Your task to perform on an android device: change timer sound Image 0: 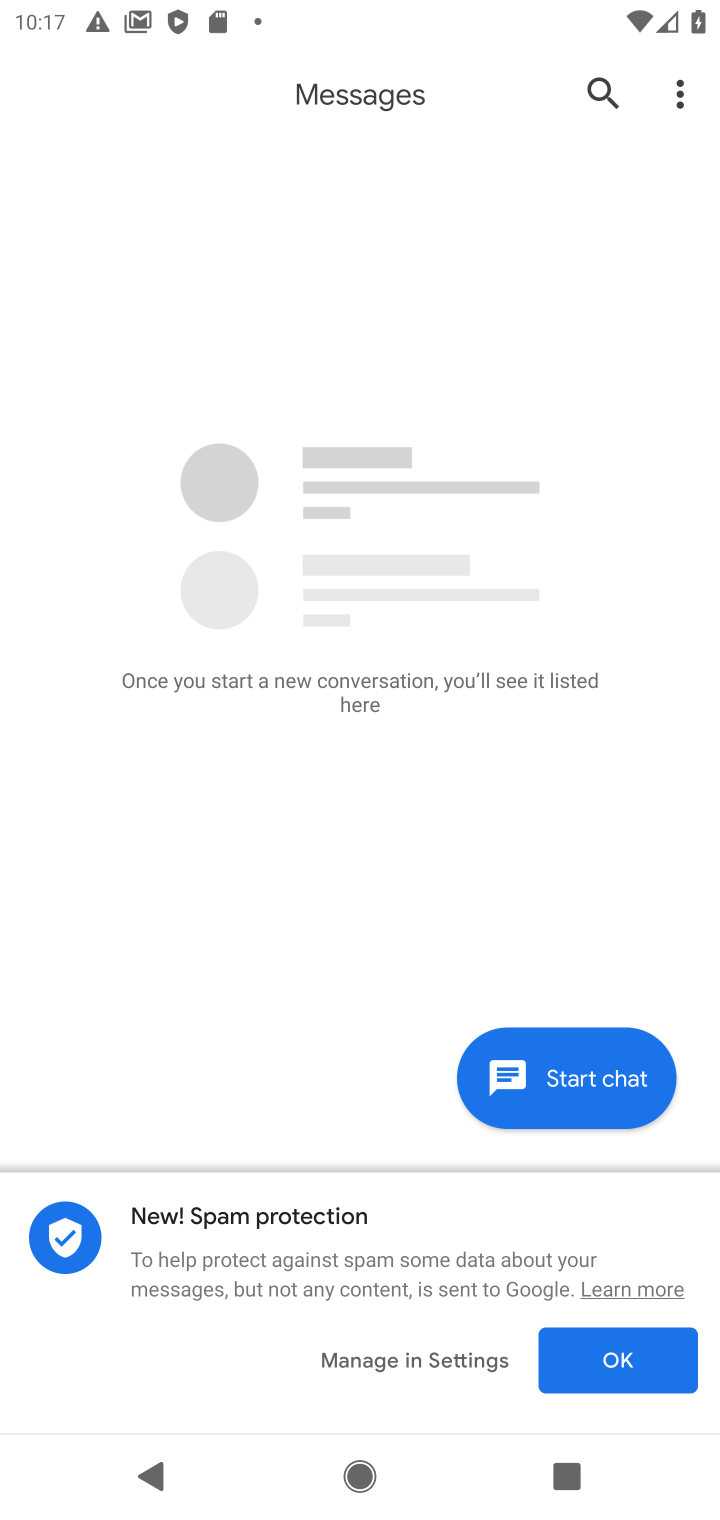
Step 0: press home button
Your task to perform on an android device: change timer sound Image 1: 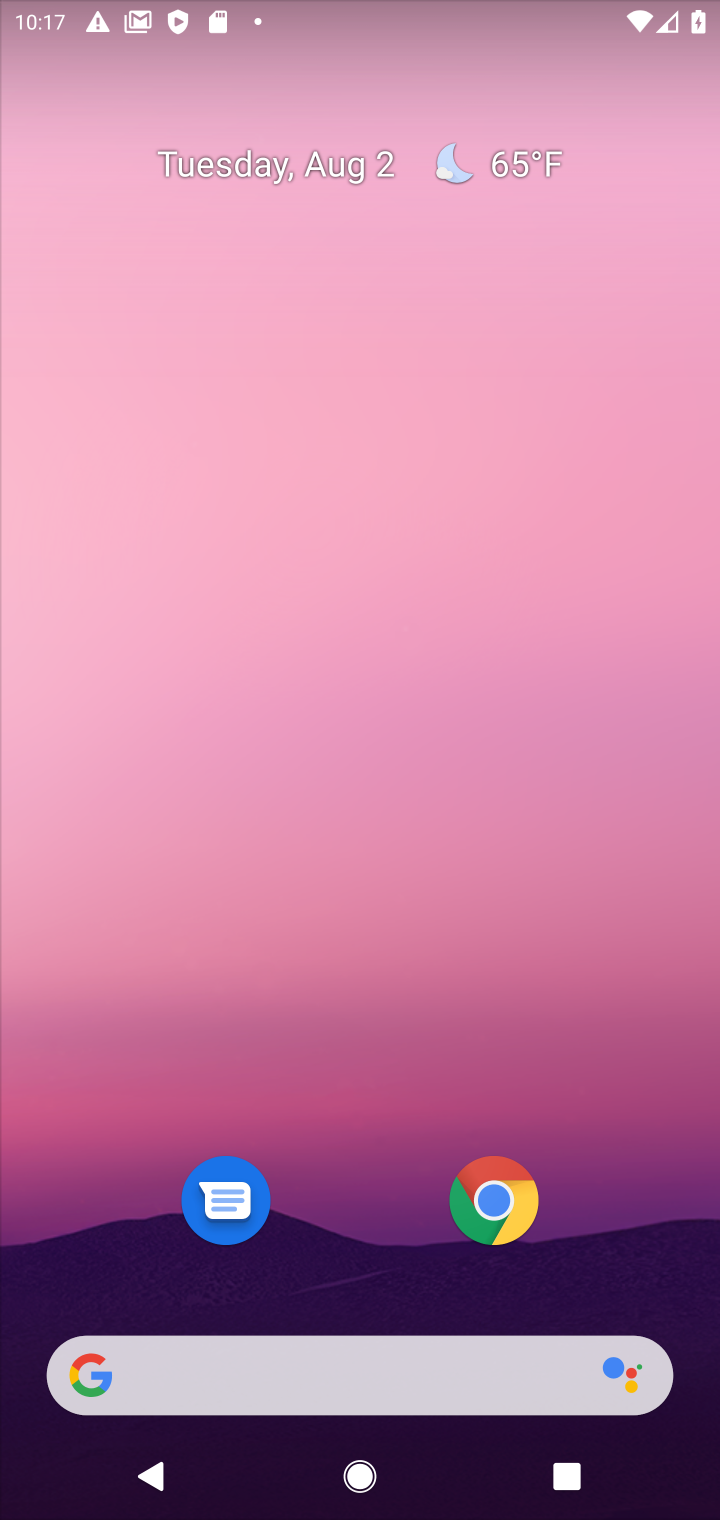
Step 1: drag from (669, 1256) to (619, 274)
Your task to perform on an android device: change timer sound Image 2: 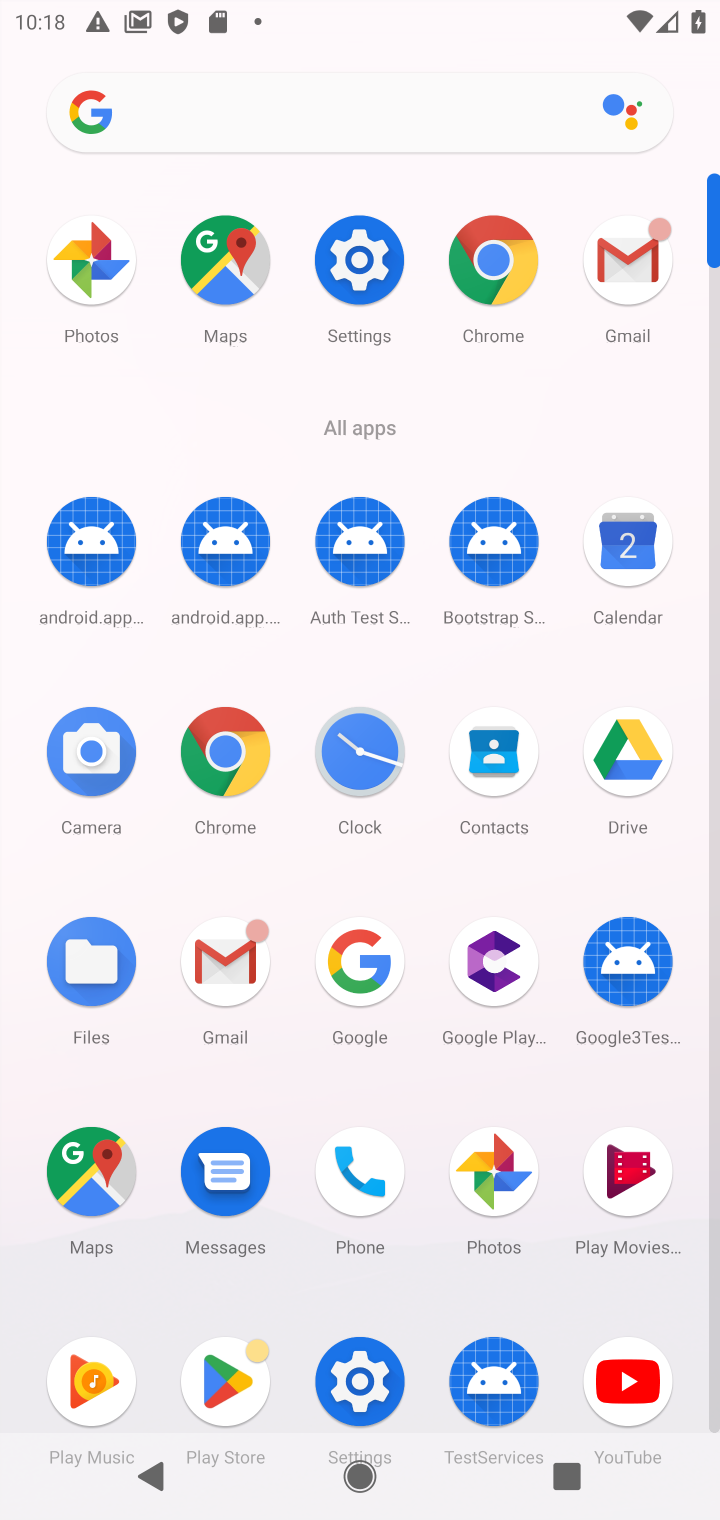
Step 2: click (360, 751)
Your task to perform on an android device: change timer sound Image 3: 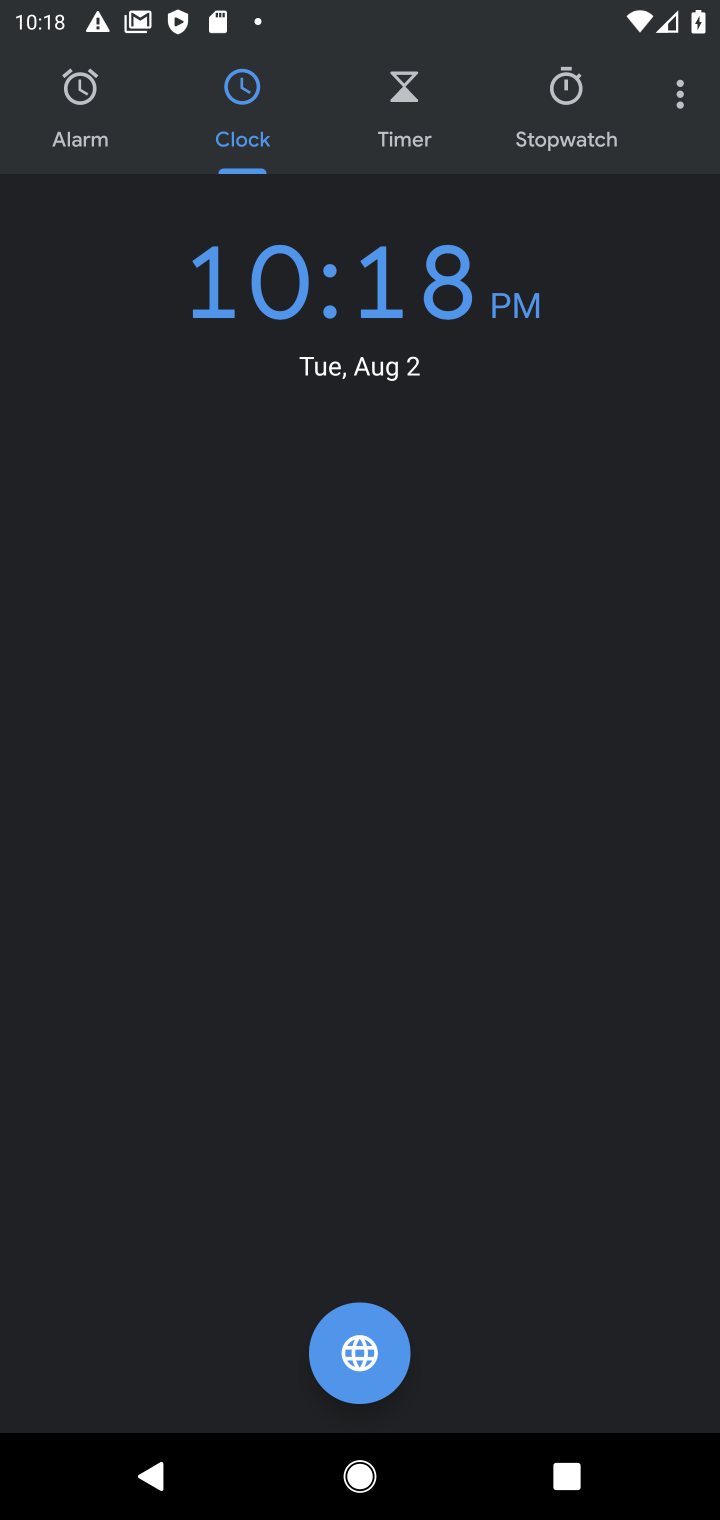
Step 3: click (685, 107)
Your task to perform on an android device: change timer sound Image 4: 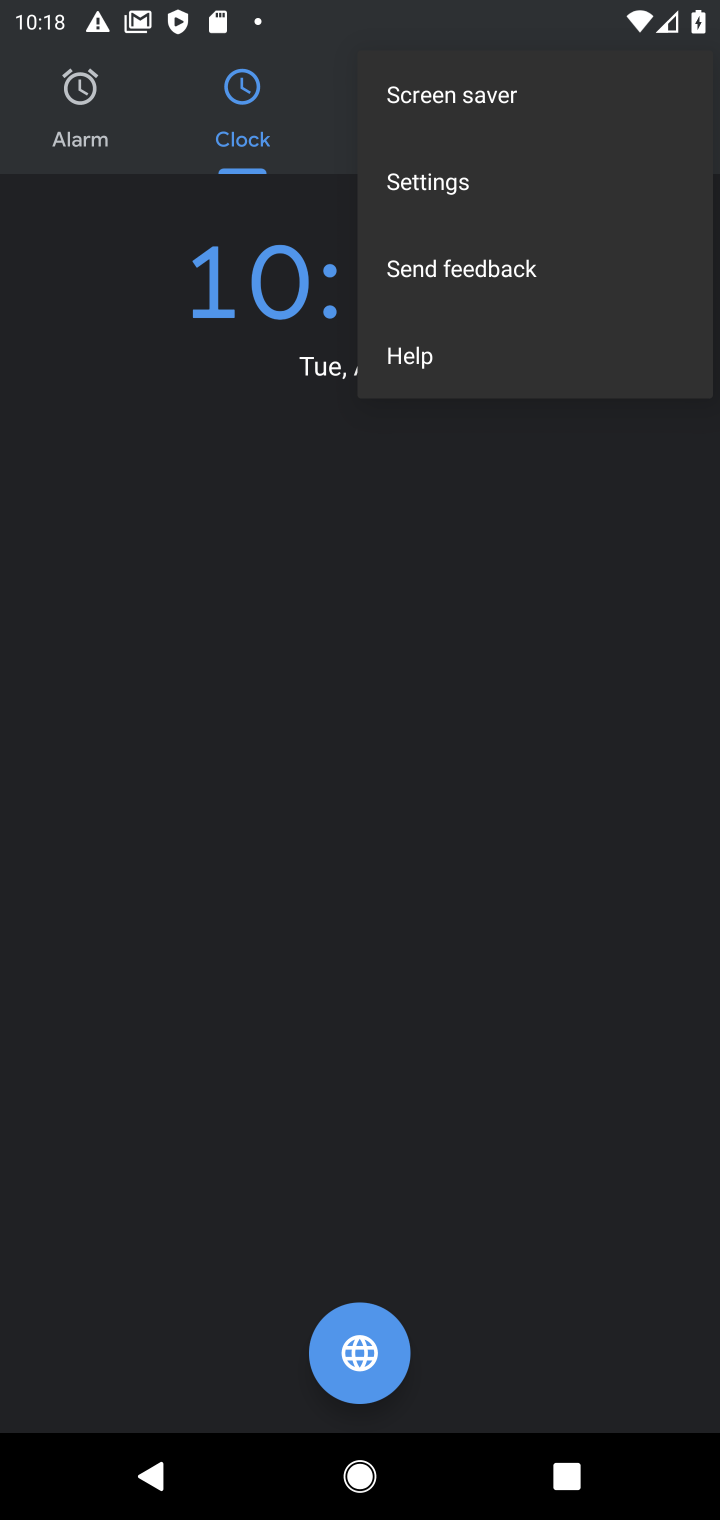
Step 4: click (434, 173)
Your task to perform on an android device: change timer sound Image 5: 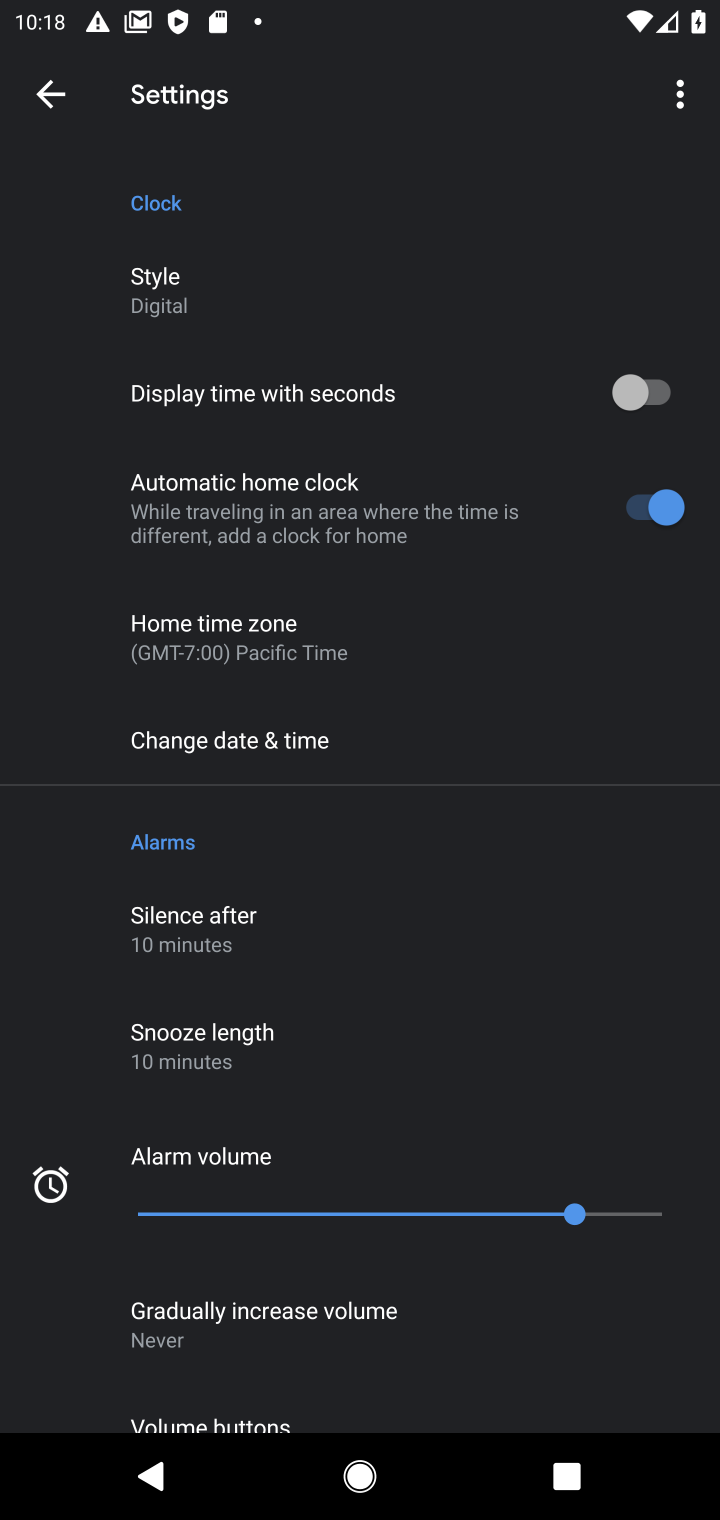
Step 5: drag from (310, 1178) to (279, 332)
Your task to perform on an android device: change timer sound Image 6: 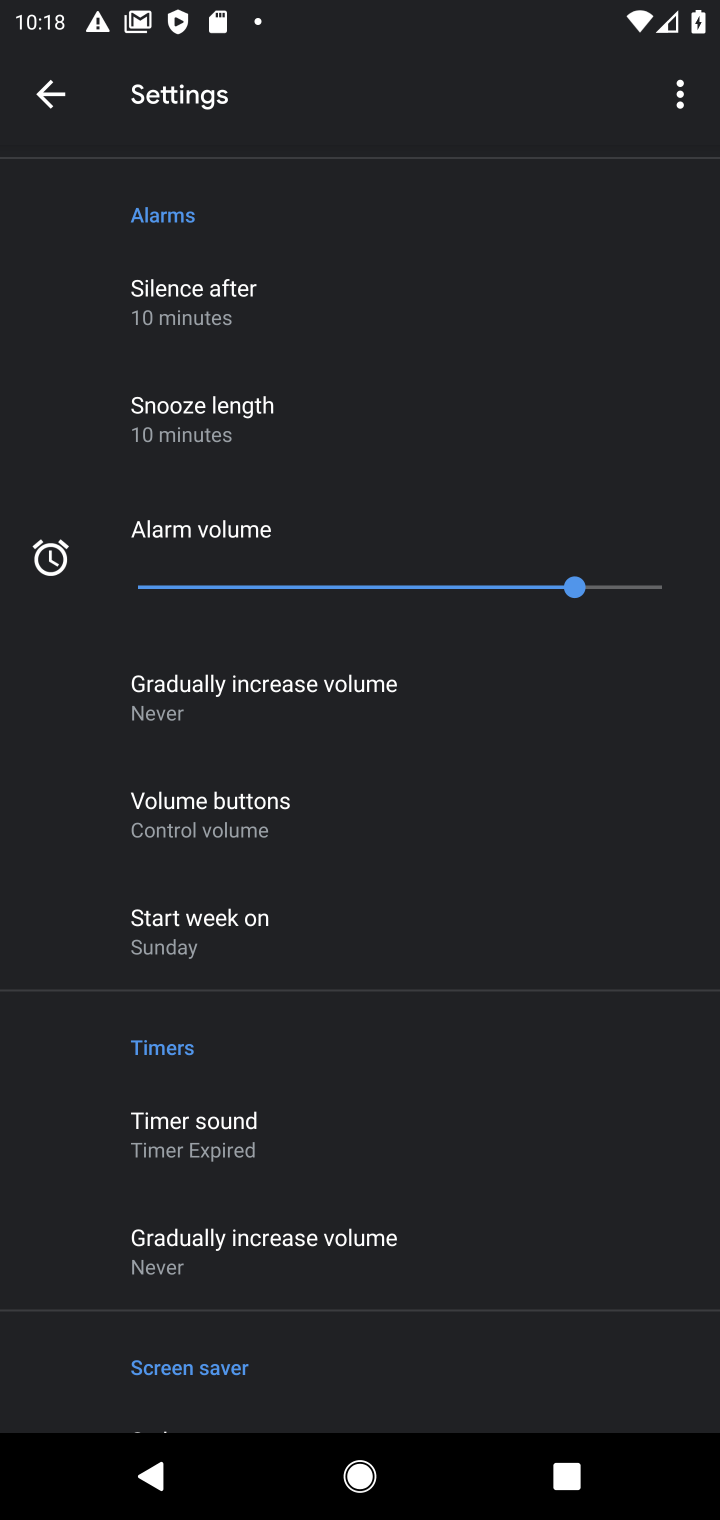
Step 6: click (214, 1127)
Your task to perform on an android device: change timer sound Image 7: 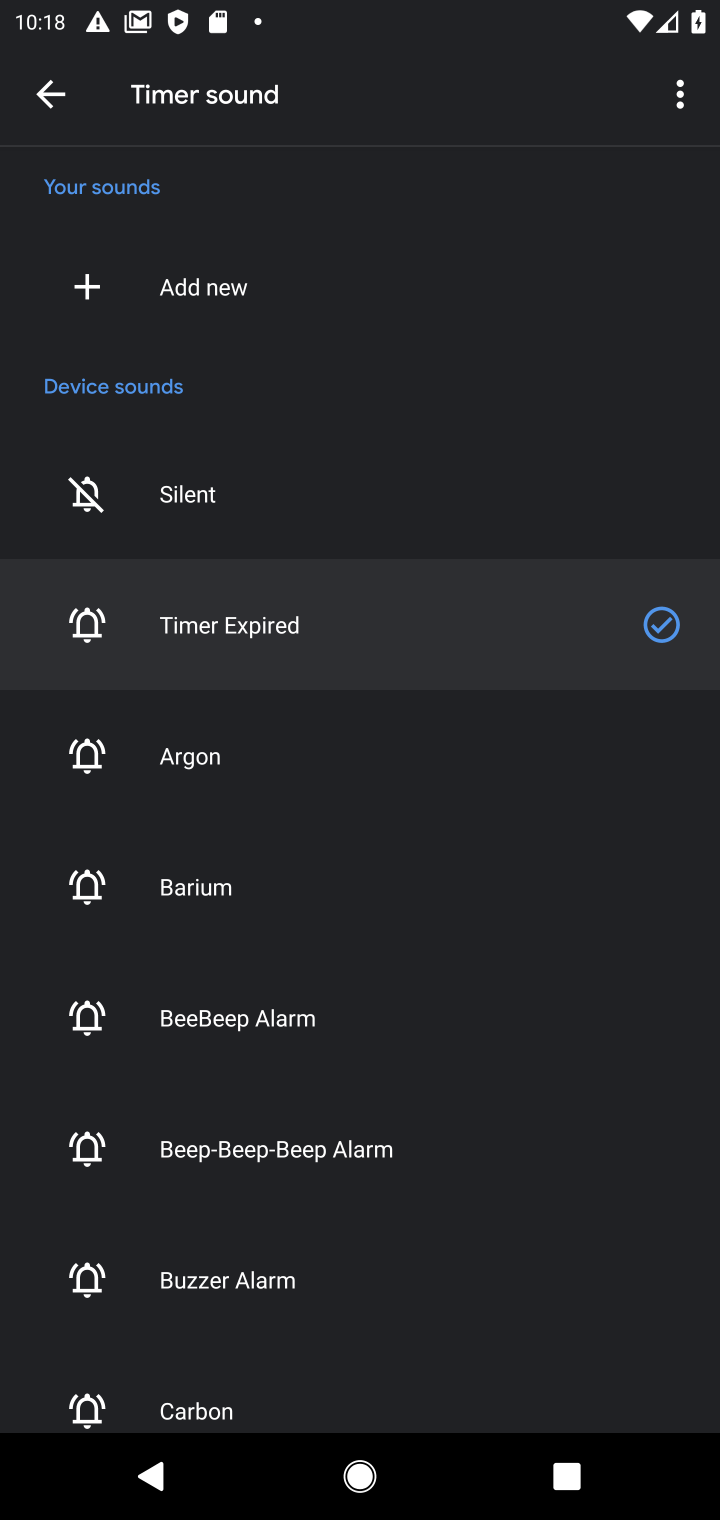
Step 7: click (218, 1285)
Your task to perform on an android device: change timer sound Image 8: 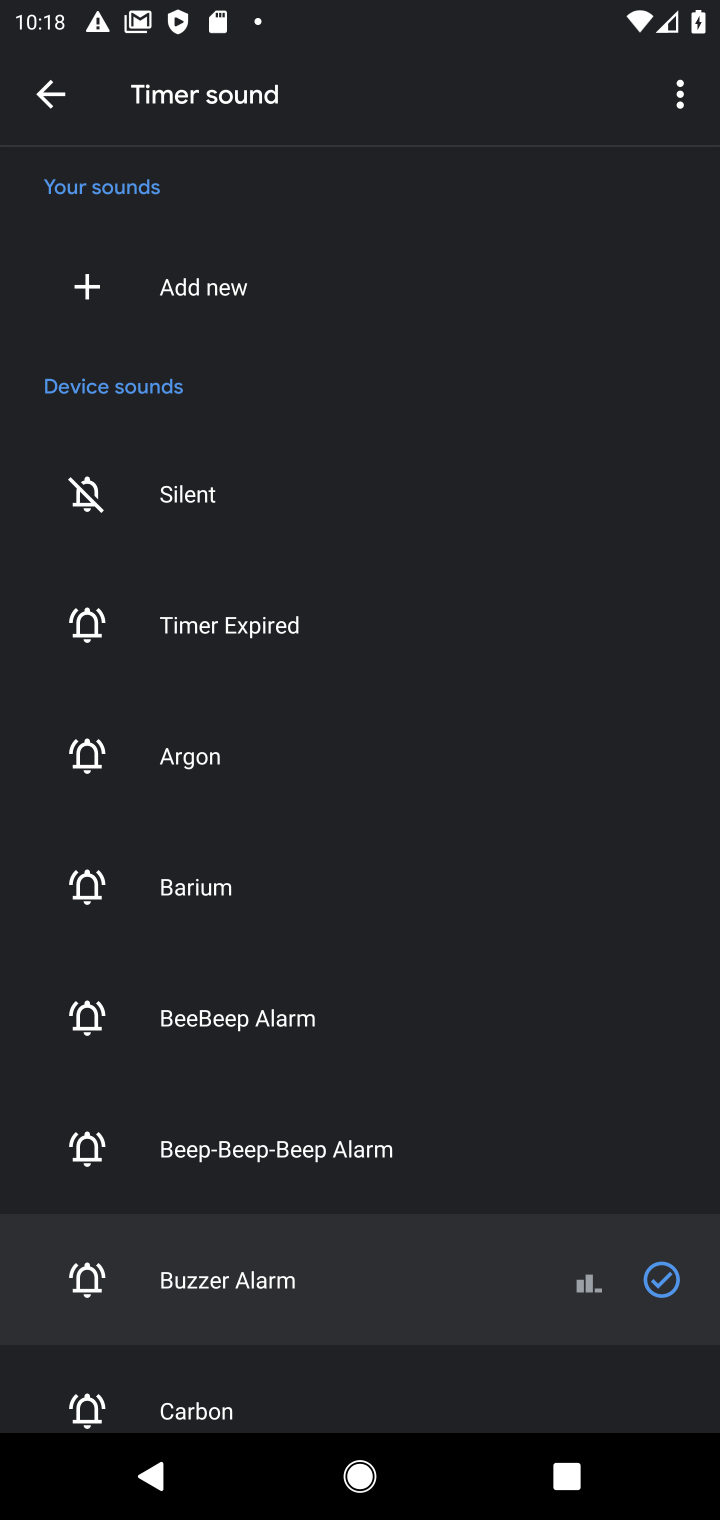
Step 8: task complete